Your task to perform on an android device: Search for pizza restaurants on Maps Image 0: 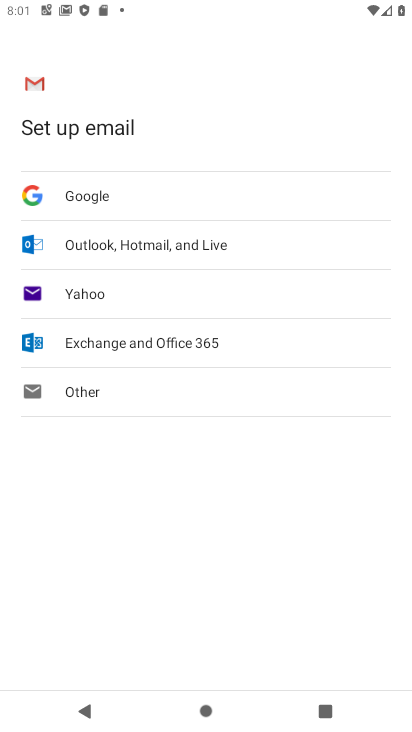
Step 0: press home button
Your task to perform on an android device: Search for pizza restaurants on Maps Image 1: 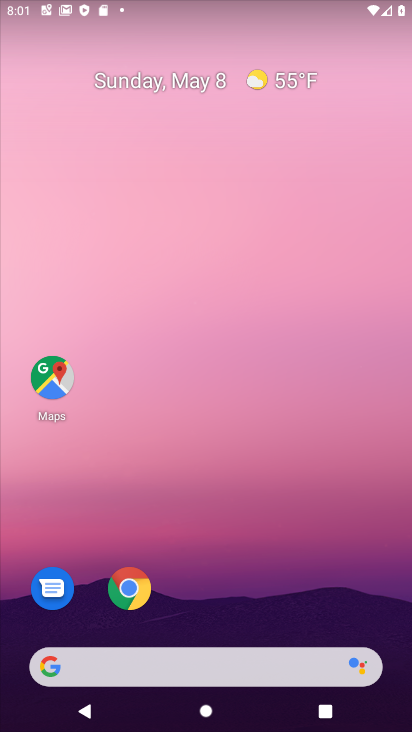
Step 1: drag from (308, 606) to (254, 41)
Your task to perform on an android device: Search for pizza restaurants on Maps Image 2: 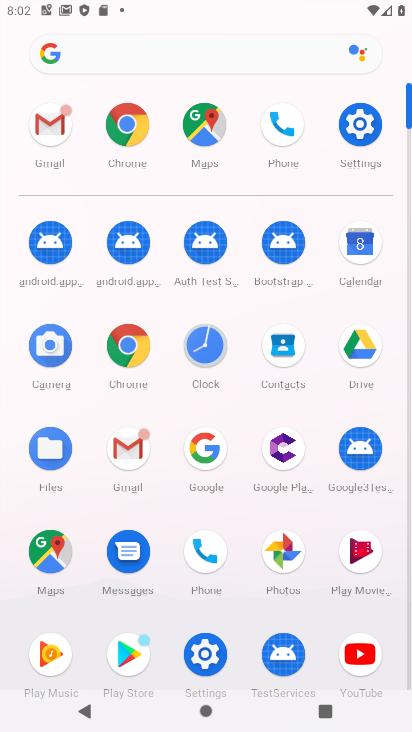
Step 2: click (59, 562)
Your task to perform on an android device: Search for pizza restaurants on Maps Image 3: 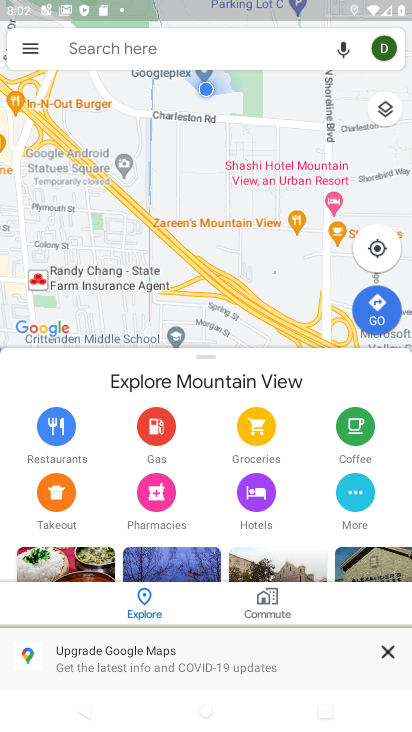
Step 3: click (225, 51)
Your task to perform on an android device: Search for pizza restaurants on Maps Image 4: 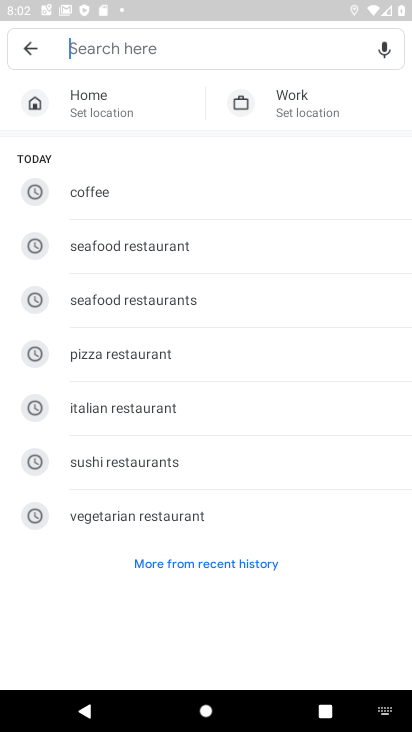
Step 4: click (191, 343)
Your task to perform on an android device: Search for pizza restaurants on Maps Image 5: 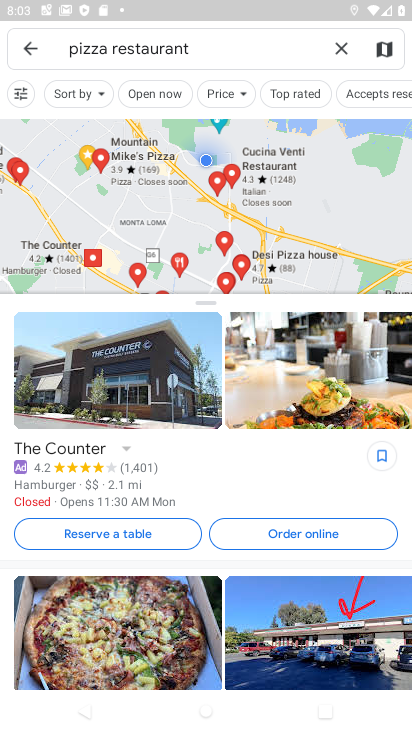
Step 5: task complete